Your task to perform on an android device: Go to privacy settings Image 0: 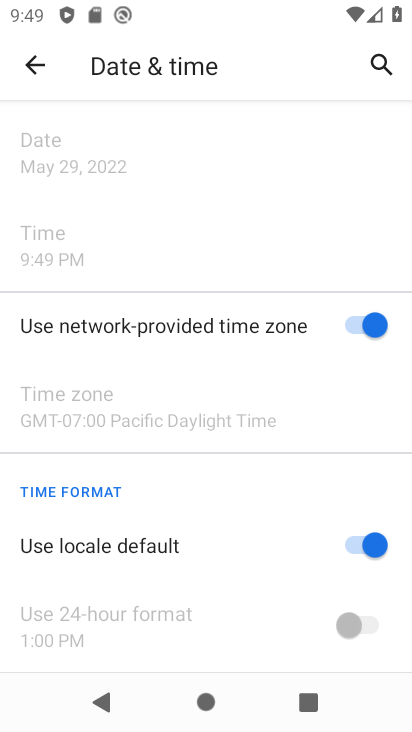
Step 0: press home button
Your task to perform on an android device: Go to privacy settings Image 1: 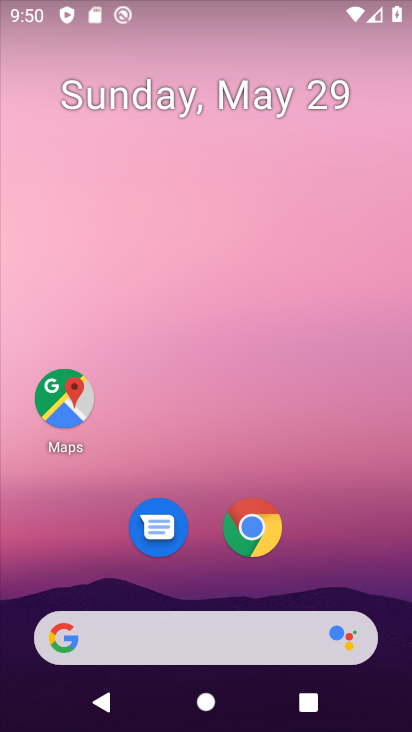
Step 1: drag from (340, 573) to (338, 143)
Your task to perform on an android device: Go to privacy settings Image 2: 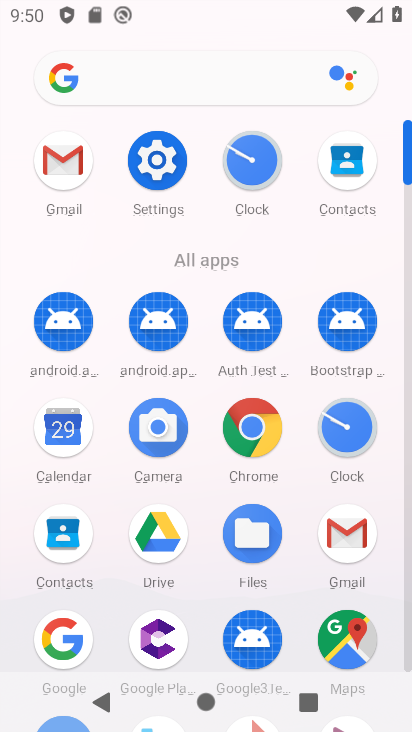
Step 2: click (144, 156)
Your task to perform on an android device: Go to privacy settings Image 3: 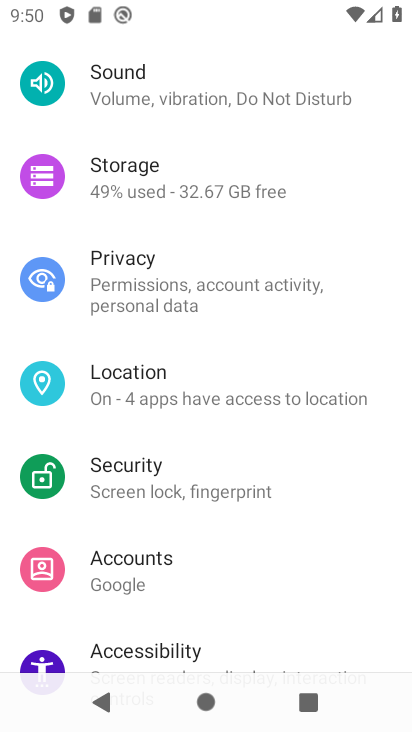
Step 3: drag from (308, 232) to (316, 636)
Your task to perform on an android device: Go to privacy settings Image 4: 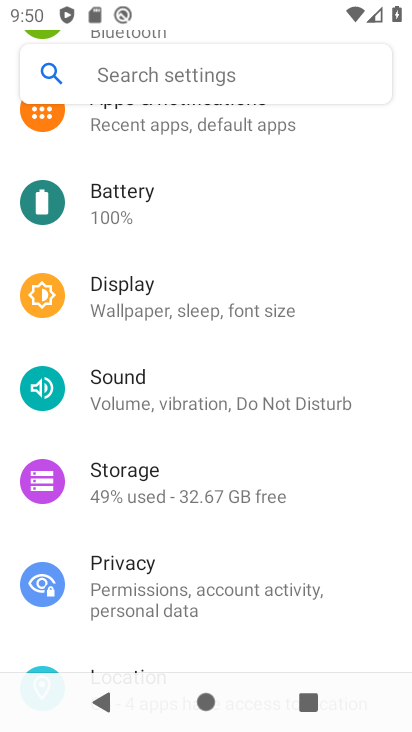
Step 4: click (190, 599)
Your task to perform on an android device: Go to privacy settings Image 5: 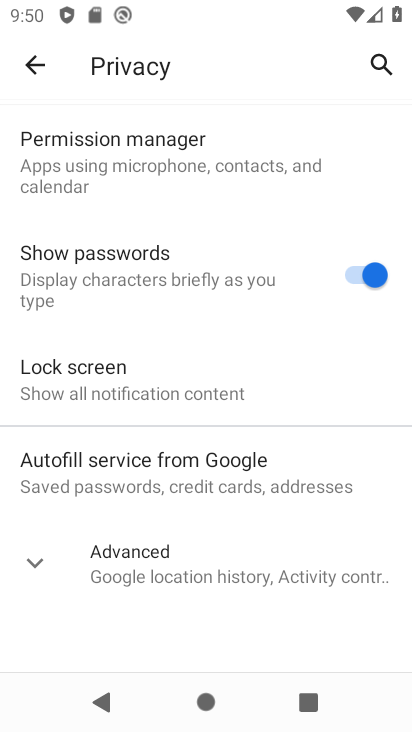
Step 5: task complete